Your task to perform on an android device: Open Amazon Image 0: 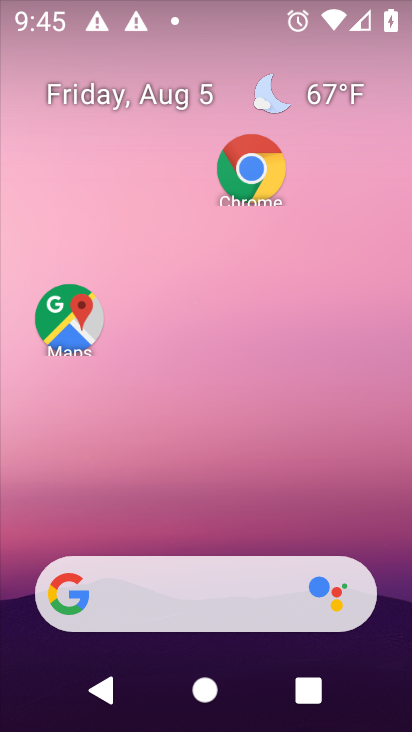
Step 0: click (227, 172)
Your task to perform on an android device: Open Amazon Image 1: 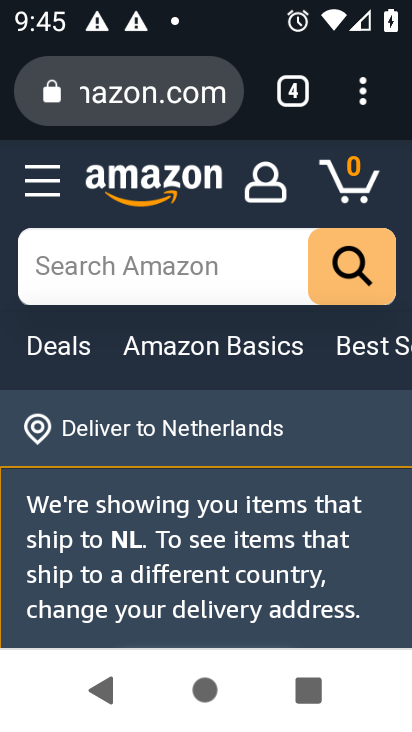
Step 1: task complete